Your task to perform on an android device: empty trash in the gmail app Image 0: 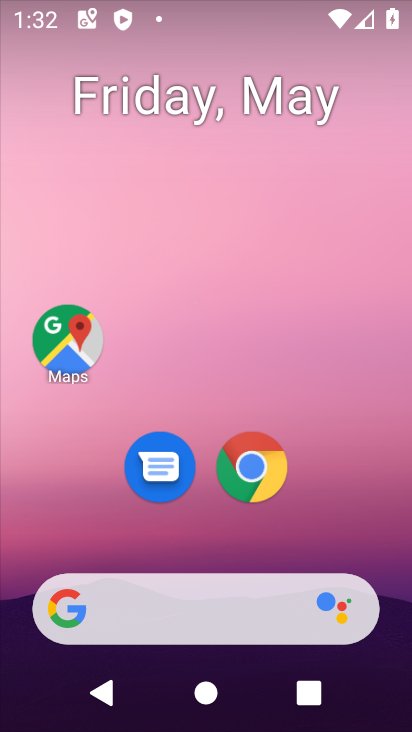
Step 0: drag from (338, 488) to (228, 13)
Your task to perform on an android device: empty trash in the gmail app Image 1: 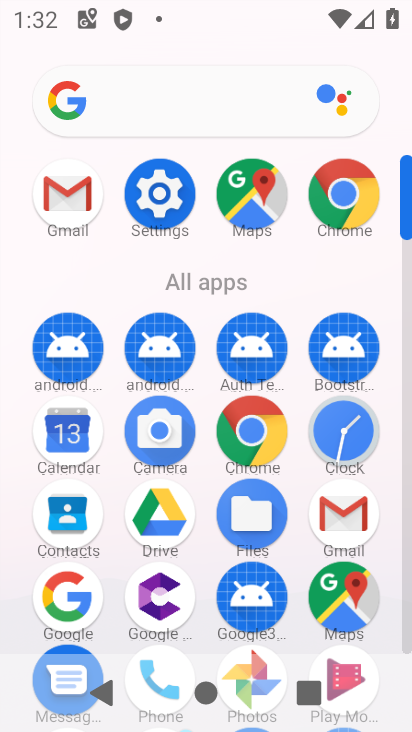
Step 1: click (79, 246)
Your task to perform on an android device: empty trash in the gmail app Image 2: 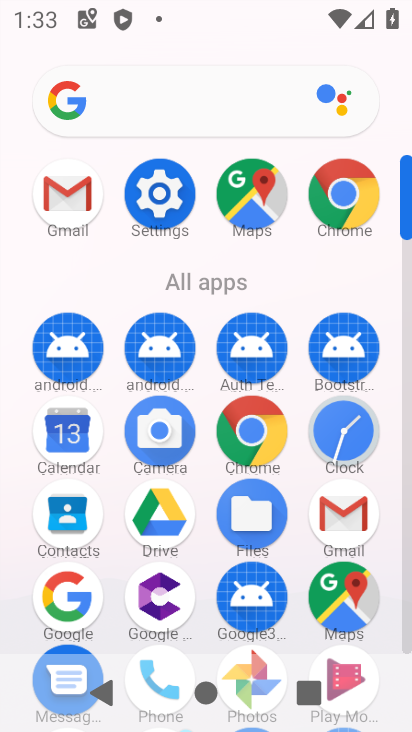
Step 2: click (90, 190)
Your task to perform on an android device: empty trash in the gmail app Image 3: 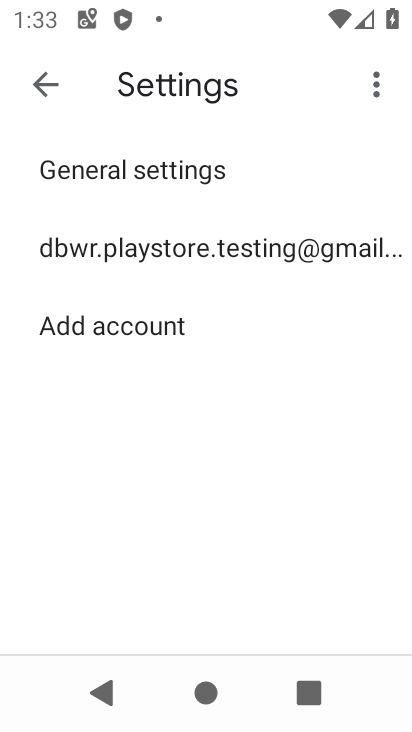
Step 3: click (82, 234)
Your task to perform on an android device: empty trash in the gmail app Image 4: 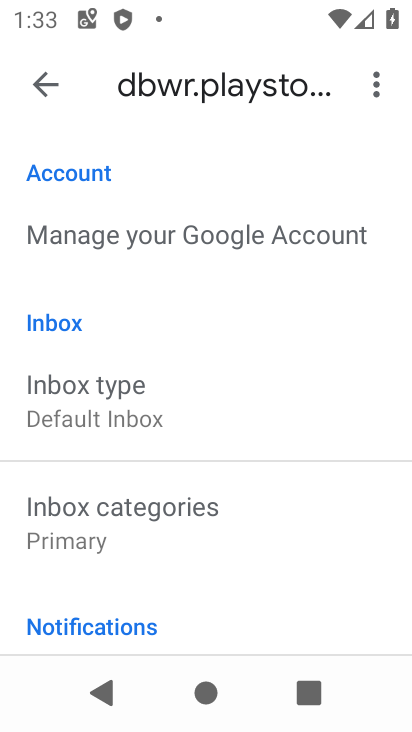
Step 4: click (31, 88)
Your task to perform on an android device: empty trash in the gmail app Image 5: 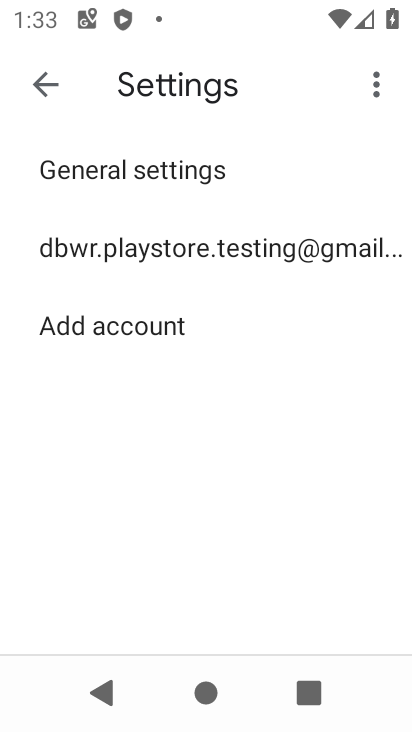
Step 5: click (31, 88)
Your task to perform on an android device: empty trash in the gmail app Image 6: 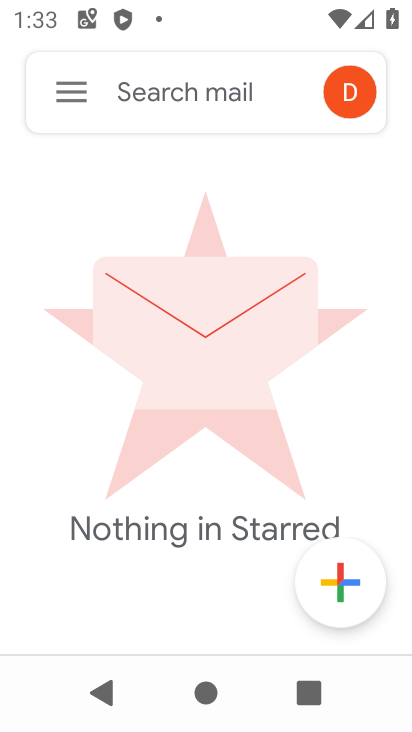
Step 6: click (54, 107)
Your task to perform on an android device: empty trash in the gmail app Image 7: 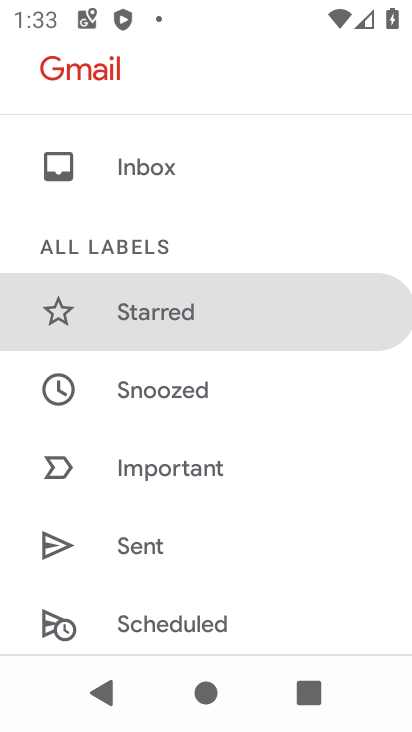
Step 7: drag from (170, 566) to (218, 252)
Your task to perform on an android device: empty trash in the gmail app Image 8: 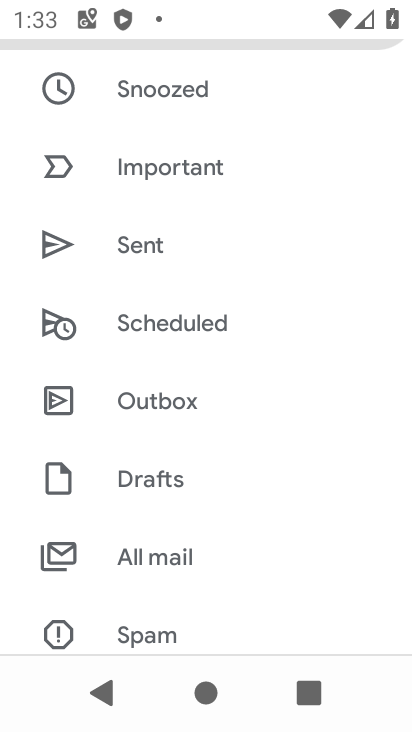
Step 8: drag from (174, 594) to (165, 248)
Your task to perform on an android device: empty trash in the gmail app Image 9: 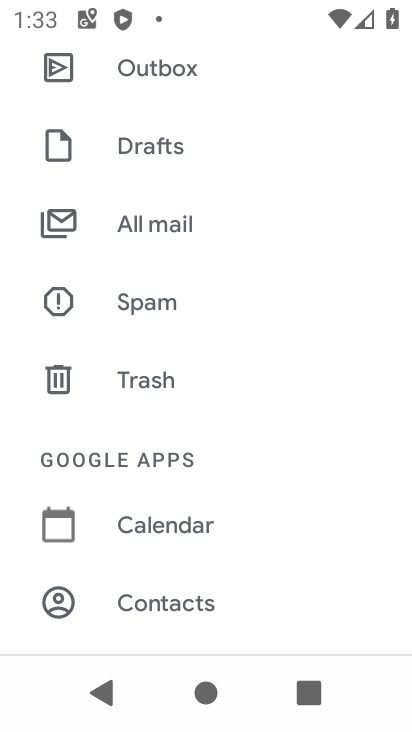
Step 9: click (126, 379)
Your task to perform on an android device: empty trash in the gmail app Image 10: 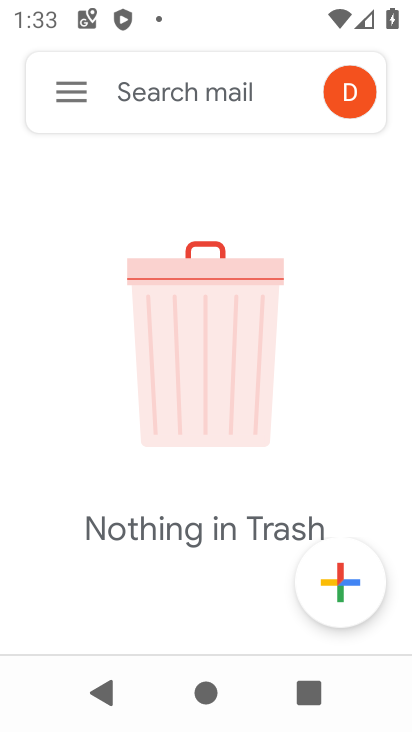
Step 10: task complete